Your task to perform on an android device: Do I have any events today? Image 0: 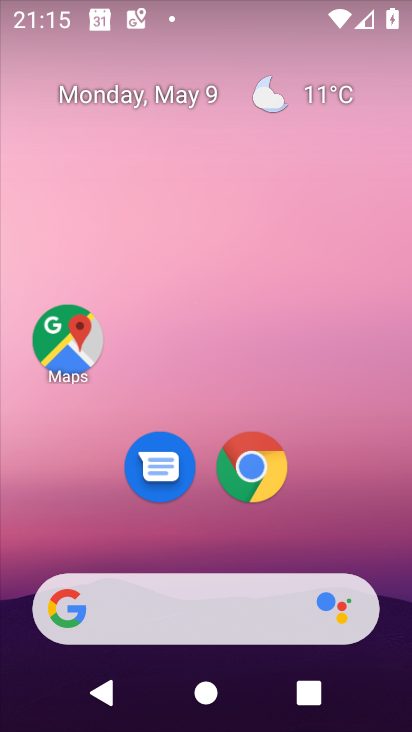
Step 0: drag from (310, 514) to (344, 224)
Your task to perform on an android device: Do I have any events today? Image 1: 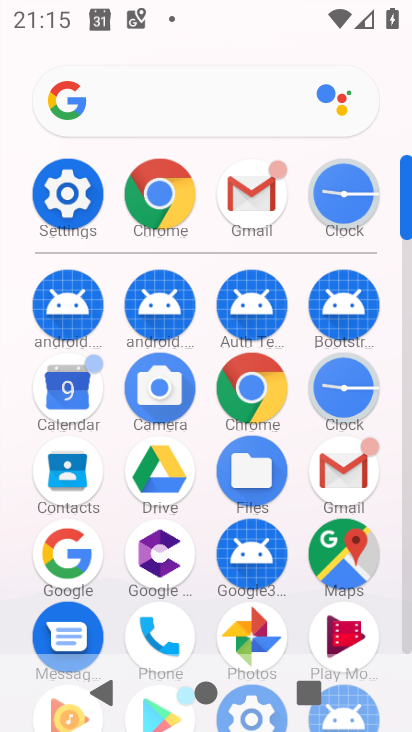
Step 1: click (55, 385)
Your task to perform on an android device: Do I have any events today? Image 2: 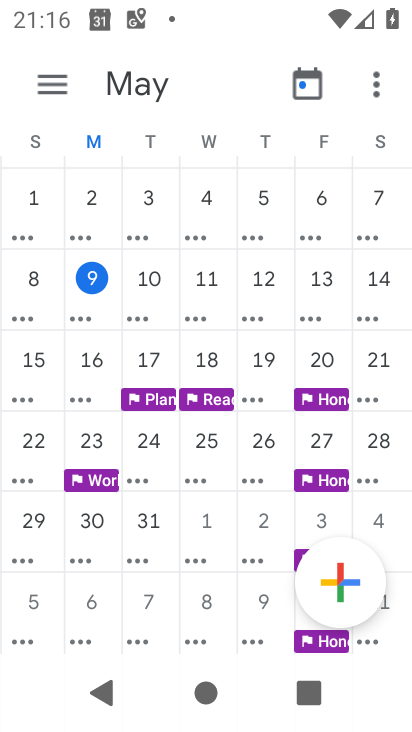
Step 2: click (40, 78)
Your task to perform on an android device: Do I have any events today? Image 3: 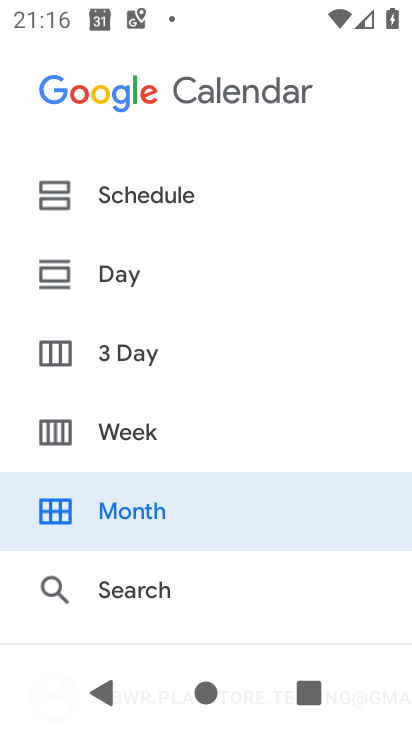
Step 3: click (147, 495)
Your task to perform on an android device: Do I have any events today? Image 4: 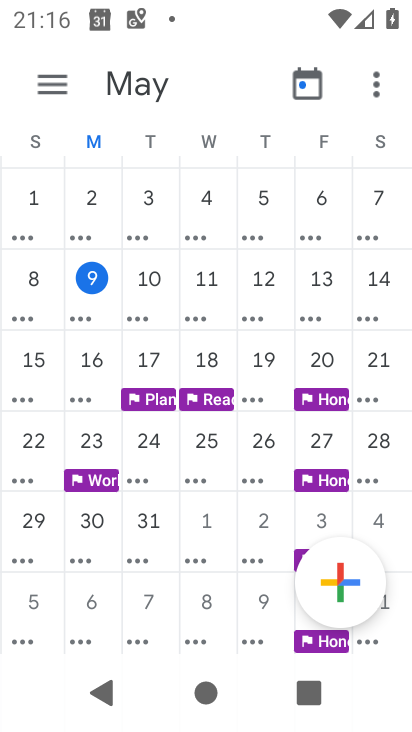
Step 4: click (136, 277)
Your task to perform on an android device: Do I have any events today? Image 5: 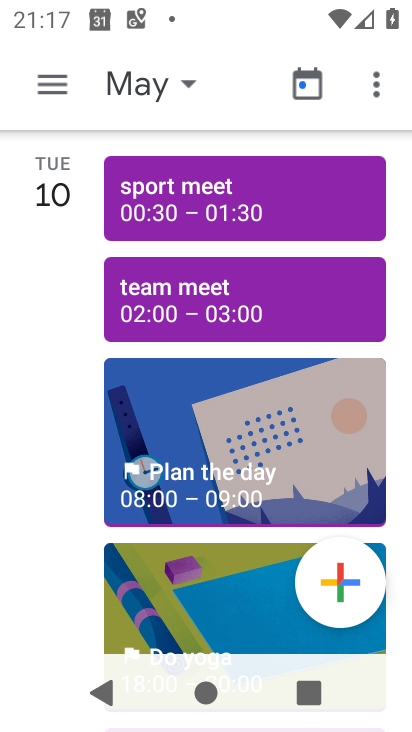
Step 5: task complete